Your task to perform on an android device: turn on showing notifications on the lock screen Image 0: 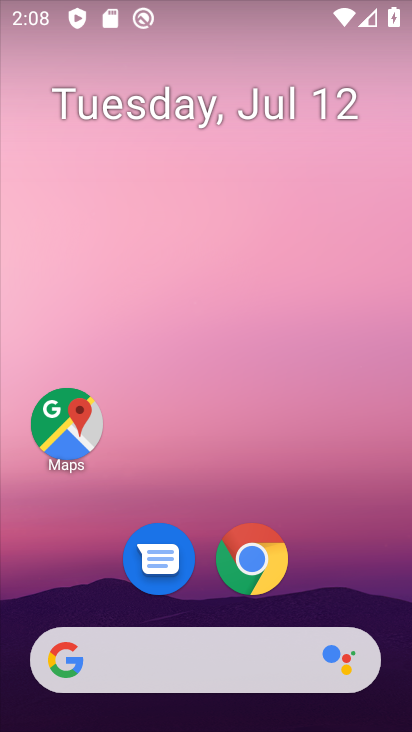
Step 0: drag from (360, 575) to (341, 195)
Your task to perform on an android device: turn on showing notifications on the lock screen Image 1: 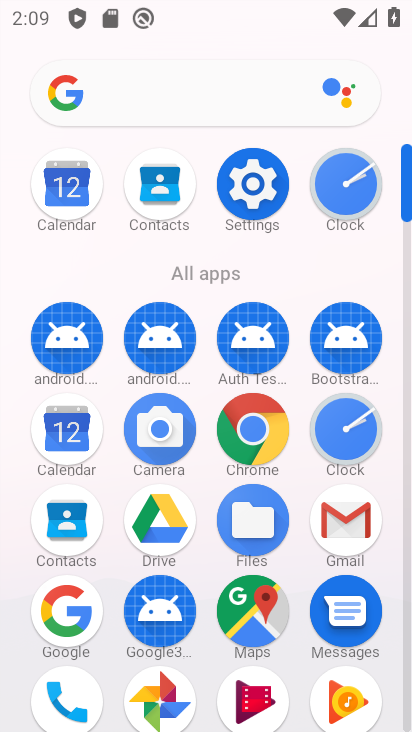
Step 1: click (262, 189)
Your task to perform on an android device: turn on showing notifications on the lock screen Image 2: 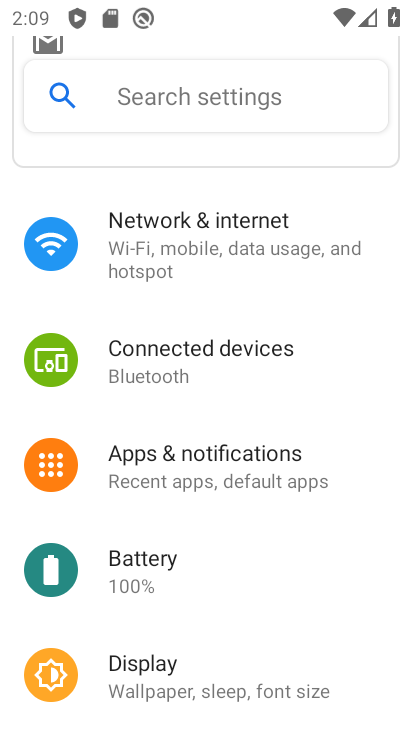
Step 2: drag from (339, 578) to (376, 298)
Your task to perform on an android device: turn on showing notifications on the lock screen Image 3: 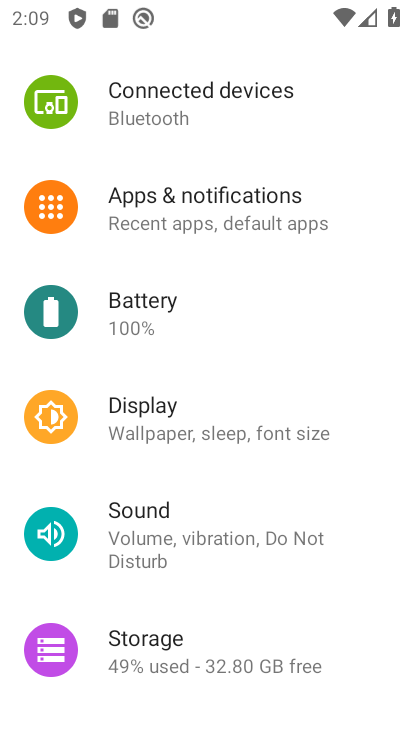
Step 3: drag from (367, 500) to (365, 364)
Your task to perform on an android device: turn on showing notifications on the lock screen Image 4: 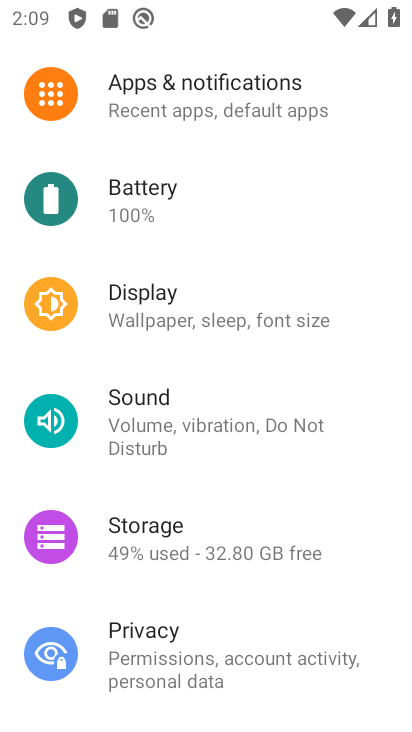
Step 4: drag from (358, 525) to (374, 307)
Your task to perform on an android device: turn on showing notifications on the lock screen Image 5: 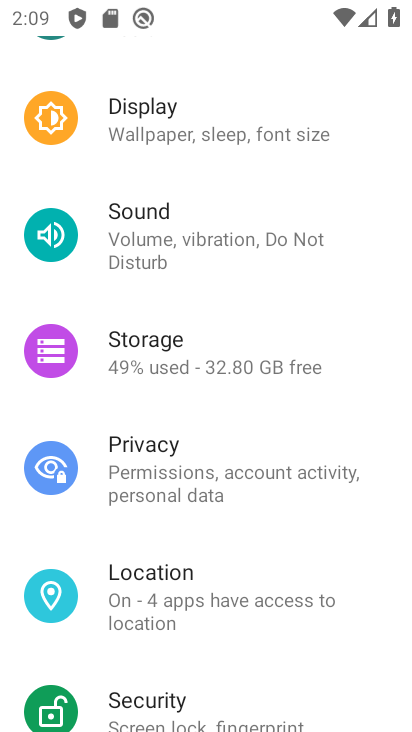
Step 5: drag from (375, 579) to (385, 363)
Your task to perform on an android device: turn on showing notifications on the lock screen Image 6: 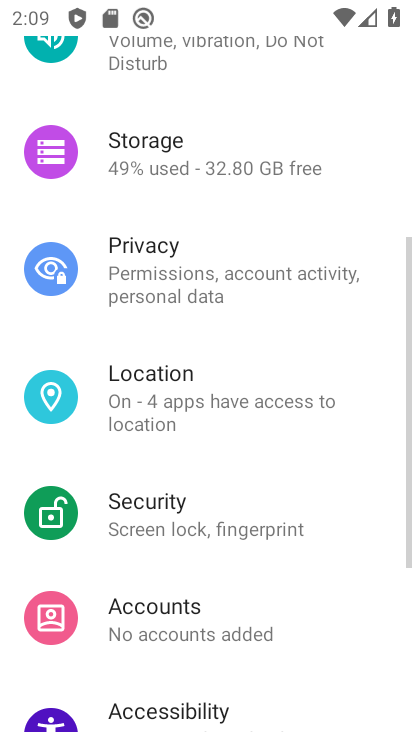
Step 6: drag from (382, 284) to (371, 461)
Your task to perform on an android device: turn on showing notifications on the lock screen Image 7: 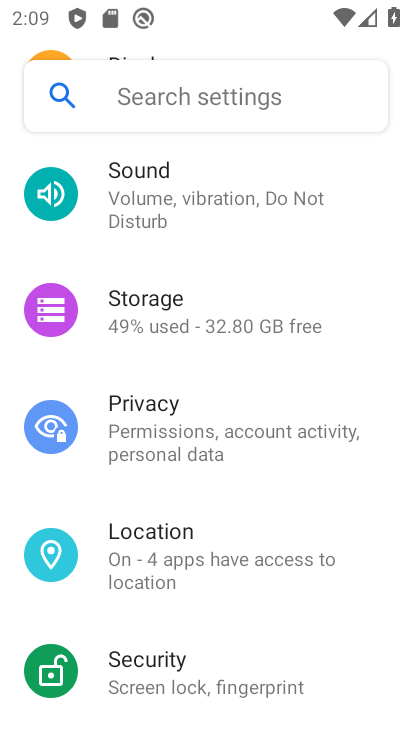
Step 7: drag from (376, 267) to (373, 425)
Your task to perform on an android device: turn on showing notifications on the lock screen Image 8: 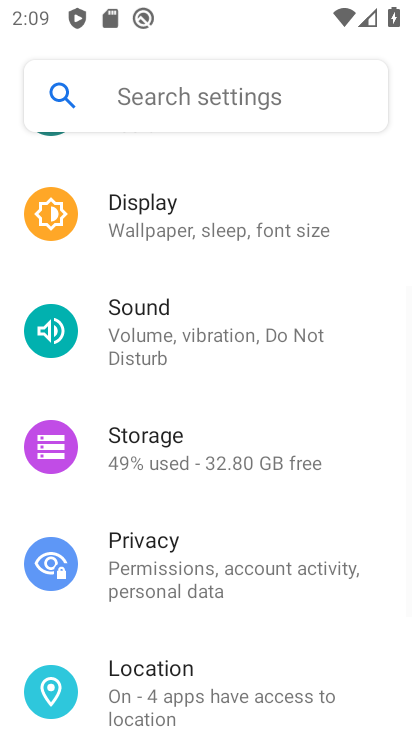
Step 8: drag from (369, 292) to (369, 431)
Your task to perform on an android device: turn on showing notifications on the lock screen Image 9: 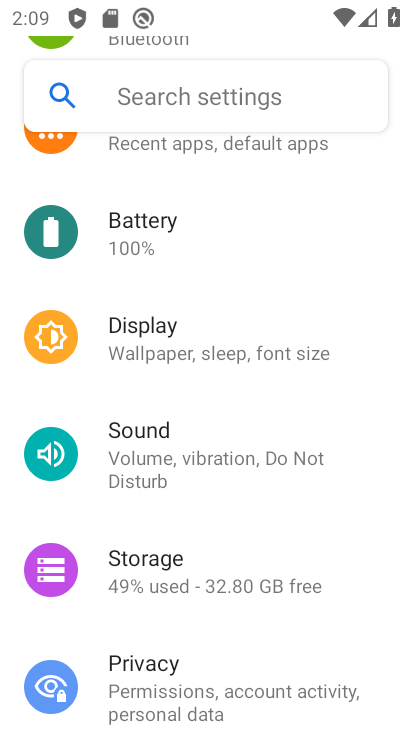
Step 9: drag from (373, 341) to (373, 462)
Your task to perform on an android device: turn on showing notifications on the lock screen Image 10: 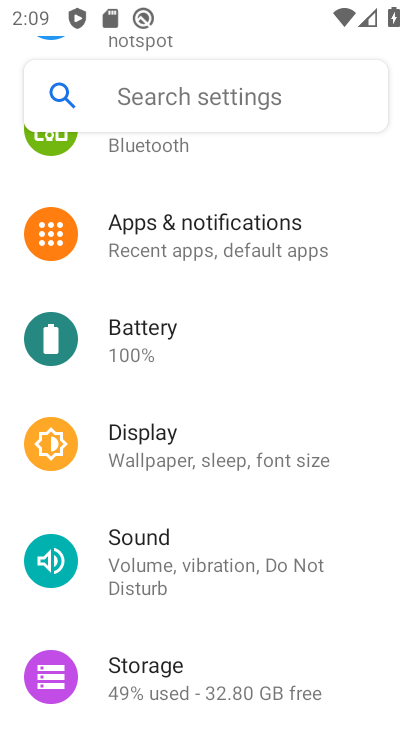
Step 10: drag from (364, 341) to (365, 440)
Your task to perform on an android device: turn on showing notifications on the lock screen Image 11: 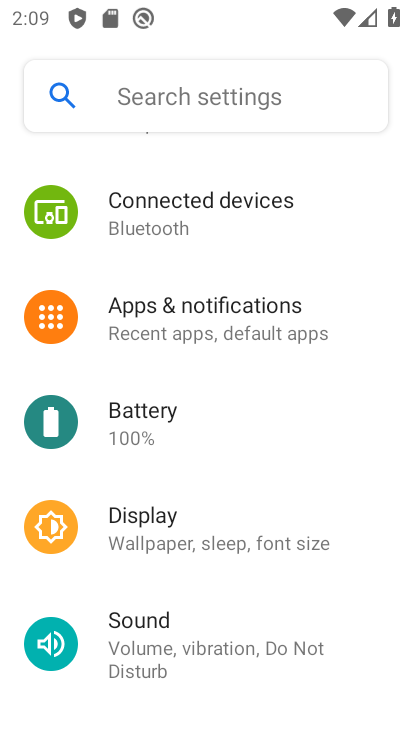
Step 11: drag from (355, 352) to (337, 569)
Your task to perform on an android device: turn on showing notifications on the lock screen Image 12: 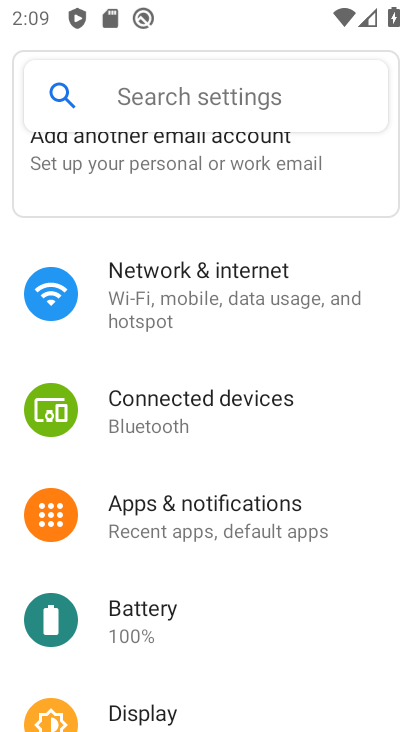
Step 12: click (270, 509)
Your task to perform on an android device: turn on showing notifications on the lock screen Image 13: 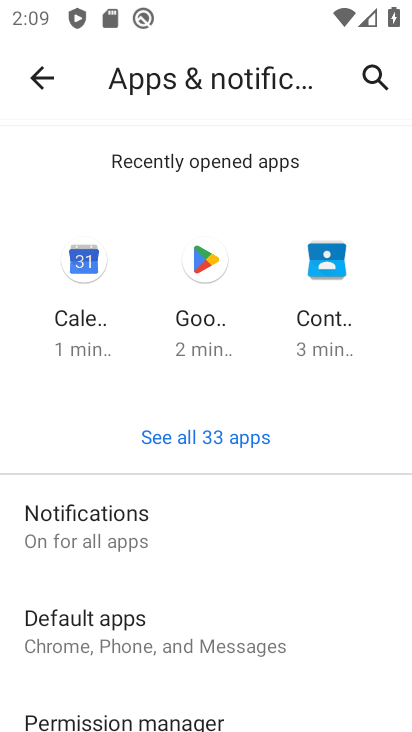
Step 13: click (147, 525)
Your task to perform on an android device: turn on showing notifications on the lock screen Image 14: 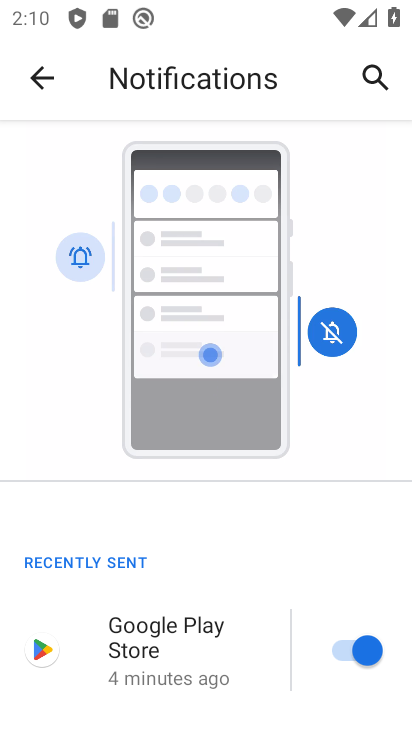
Step 14: drag from (335, 547) to (344, 397)
Your task to perform on an android device: turn on showing notifications on the lock screen Image 15: 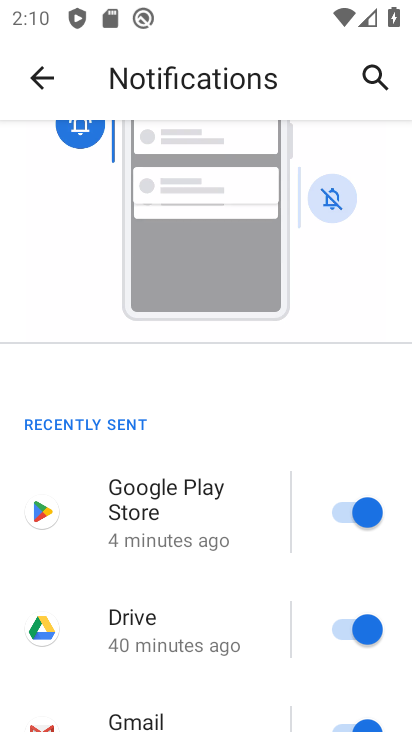
Step 15: drag from (312, 570) to (307, 461)
Your task to perform on an android device: turn on showing notifications on the lock screen Image 16: 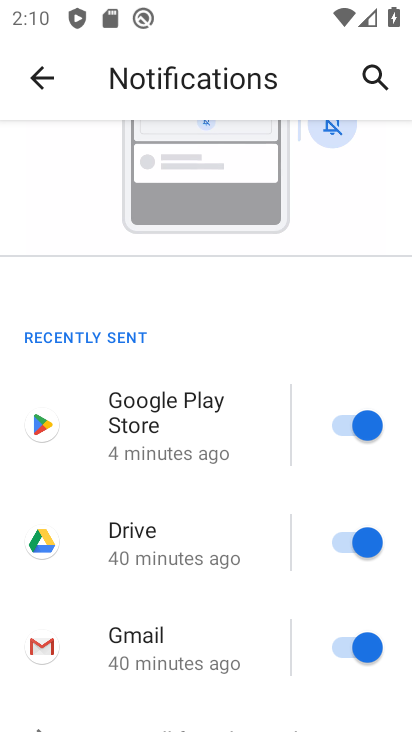
Step 16: drag from (258, 620) to (262, 376)
Your task to perform on an android device: turn on showing notifications on the lock screen Image 17: 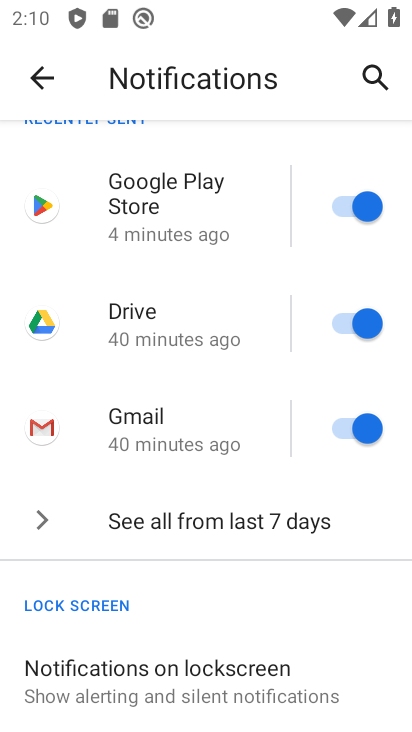
Step 17: drag from (259, 584) to (272, 441)
Your task to perform on an android device: turn on showing notifications on the lock screen Image 18: 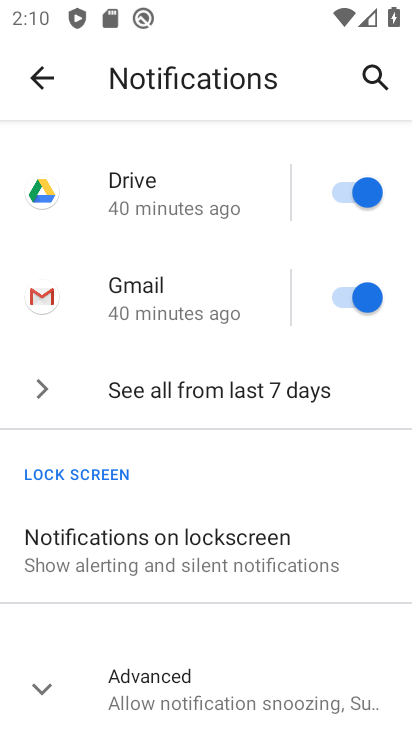
Step 18: drag from (321, 612) to (319, 478)
Your task to perform on an android device: turn on showing notifications on the lock screen Image 19: 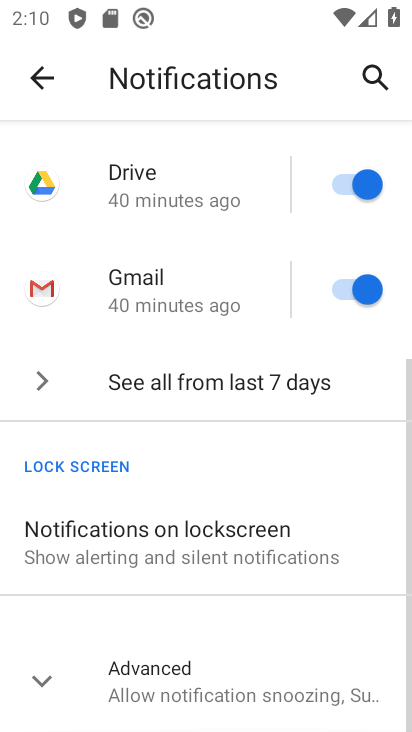
Step 19: click (303, 539)
Your task to perform on an android device: turn on showing notifications on the lock screen Image 20: 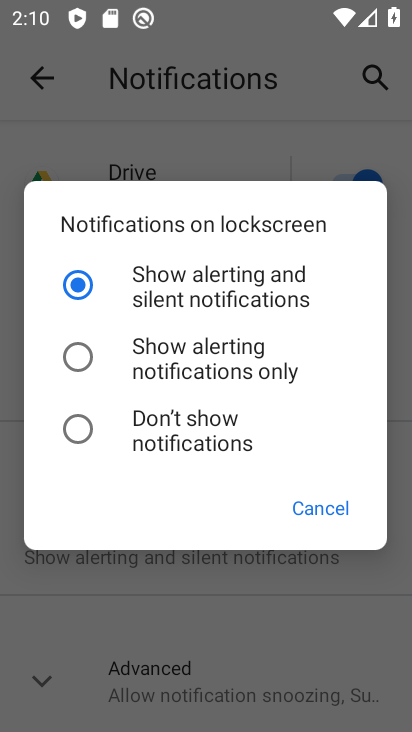
Step 20: task complete